Your task to perform on an android device: Find coffee shops on Maps Image 0: 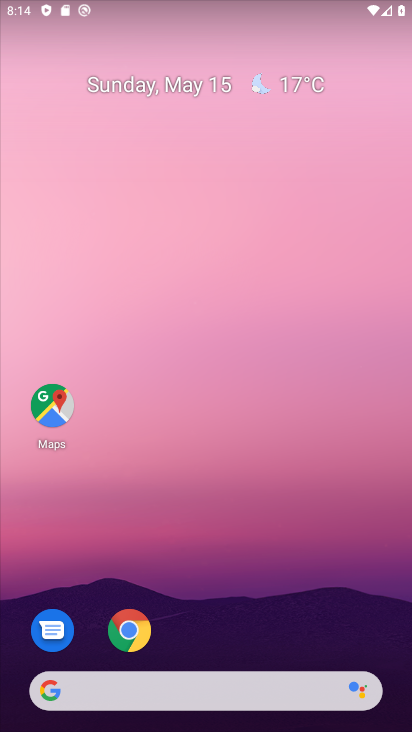
Step 0: drag from (326, 557) to (274, 67)
Your task to perform on an android device: Find coffee shops on Maps Image 1: 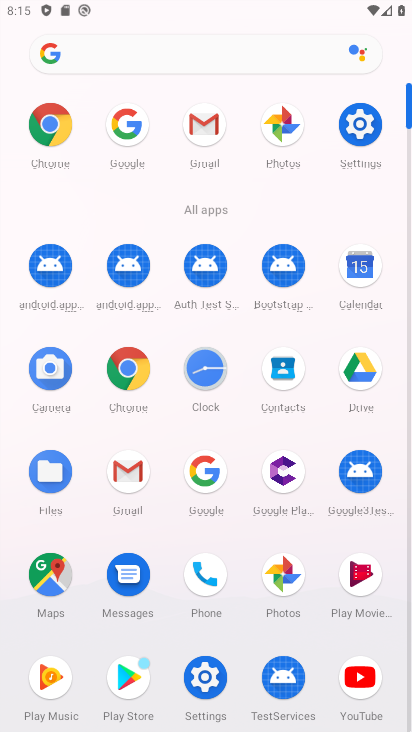
Step 1: click (44, 580)
Your task to perform on an android device: Find coffee shops on Maps Image 2: 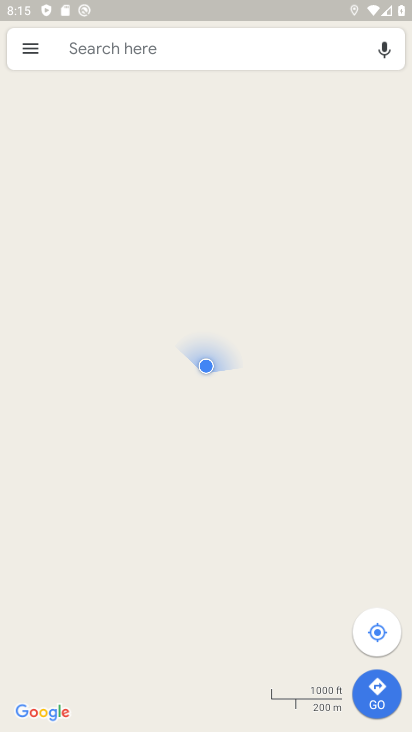
Step 2: click (183, 55)
Your task to perform on an android device: Find coffee shops on Maps Image 3: 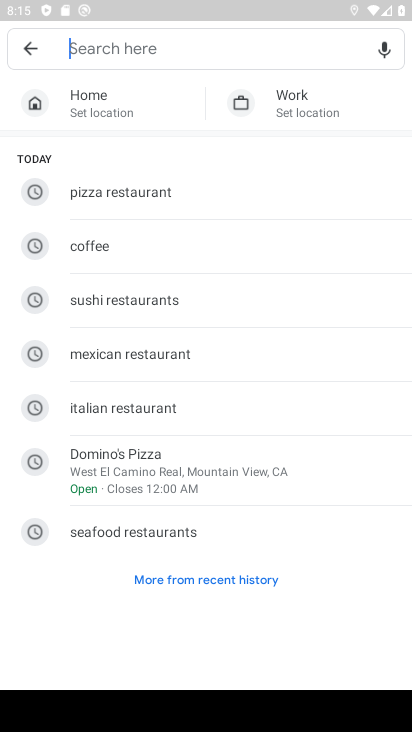
Step 3: click (59, 250)
Your task to perform on an android device: Find coffee shops on Maps Image 4: 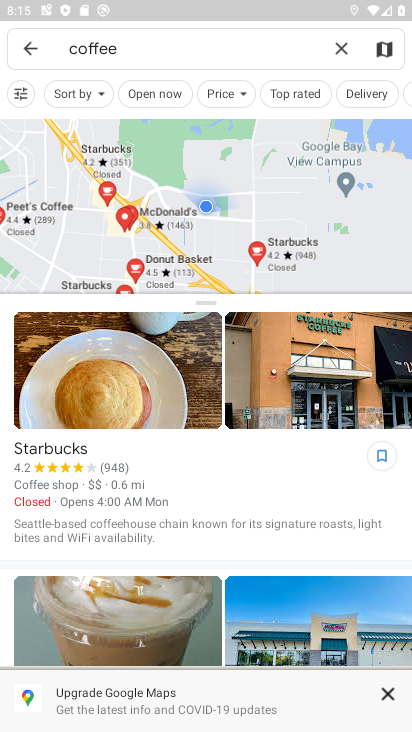
Step 4: task complete